Your task to perform on an android device: toggle location history Image 0: 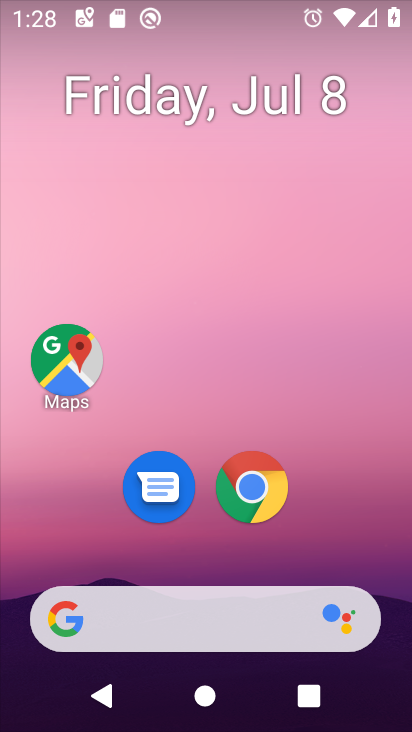
Step 0: drag from (335, 528) to (358, 140)
Your task to perform on an android device: toggle location history Image 1: 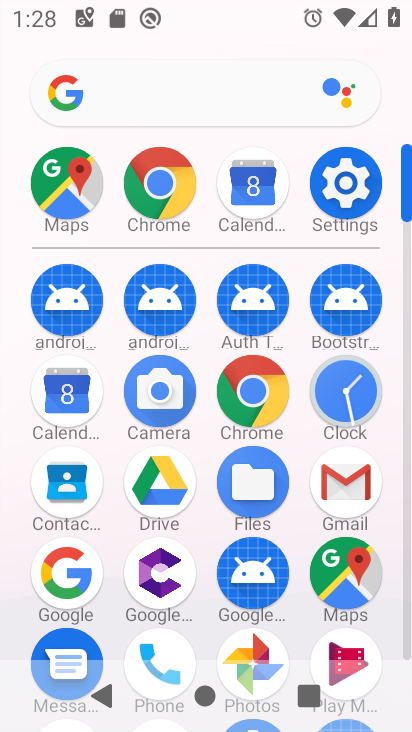
Step 1: click (343, 195)
Your task to perform on an android device: toggle location history Image 2: 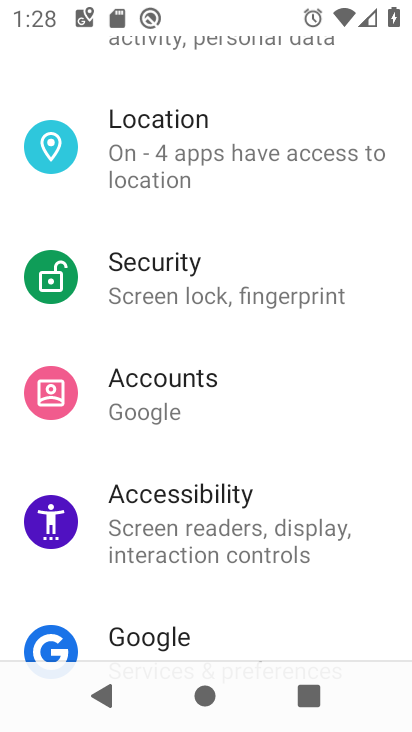
Step 2: drag from (368, 339) to (355, 407)
Your task to perform on an android device: toggle location history Image 3: 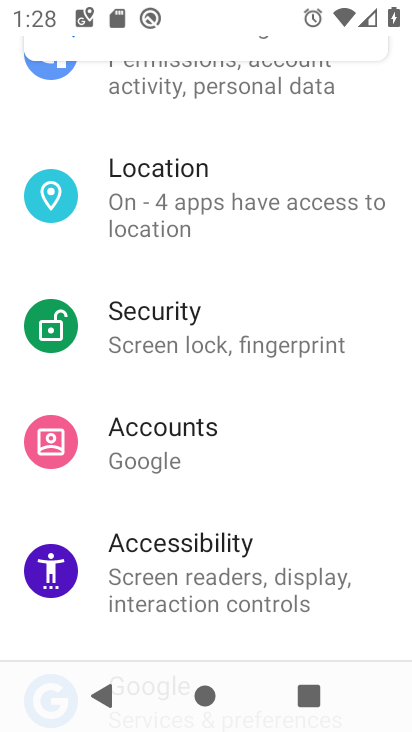
Step 3: drag from (376, 322) to (362, 405)
Your task to perform on an android device: toggle location history Image 4: 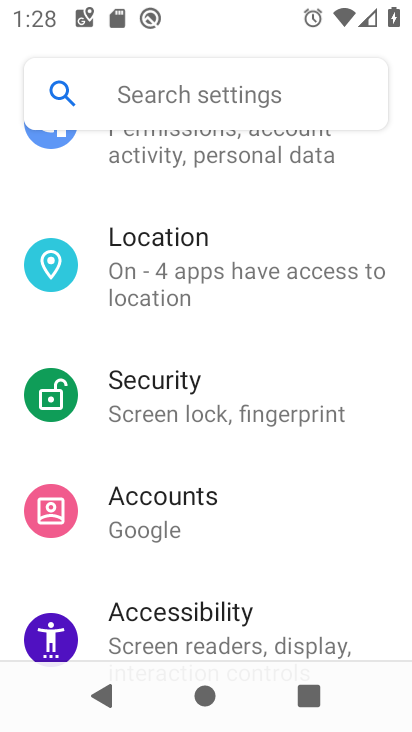
Step 4: drag from (355, 304) to (347, 391)
Your task to perform on an android device: toggle location history Image 5: 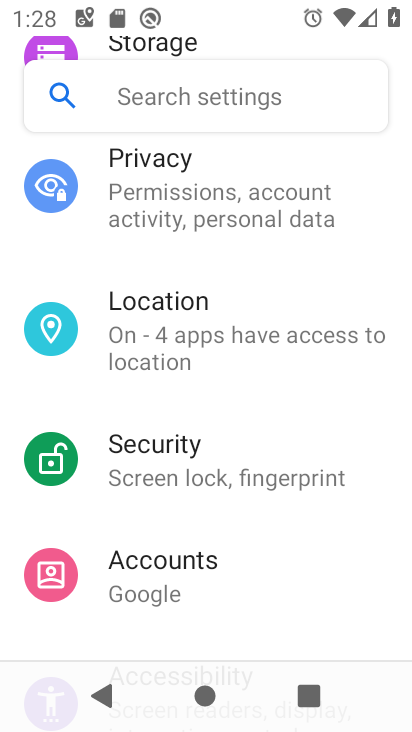
Step 5: drag from (343, 278) to (339, 380)
Your task to perform on an android device: toggle location history Image 6: 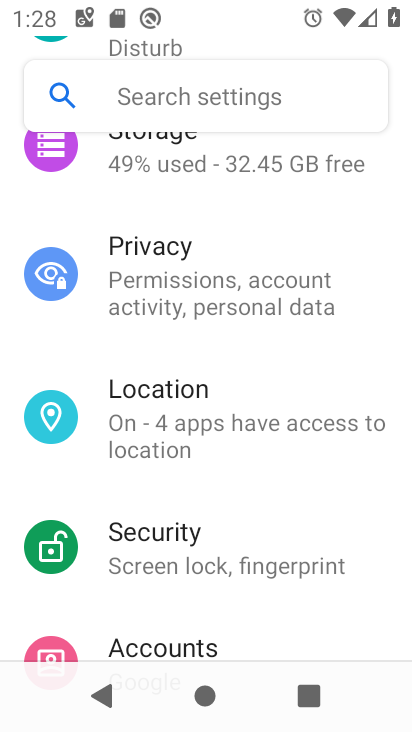
Step 6: drag from (365, 280) to (356, 369)
Your task to perform on an android device: toggle location history Image 7: 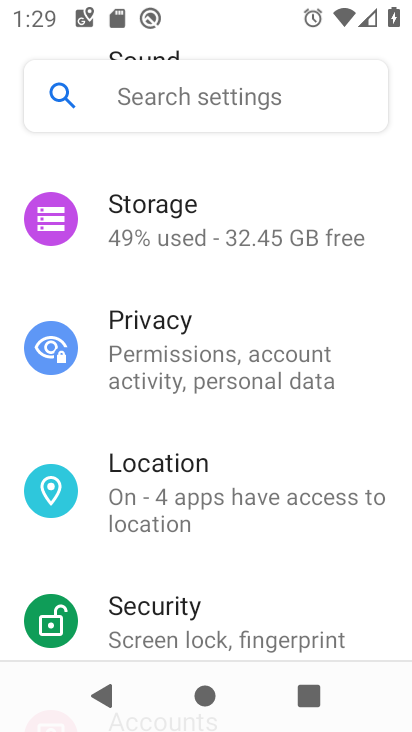
Step 7: click (323, 478)
Your task to perform on an android device: toggle location history Image 8: 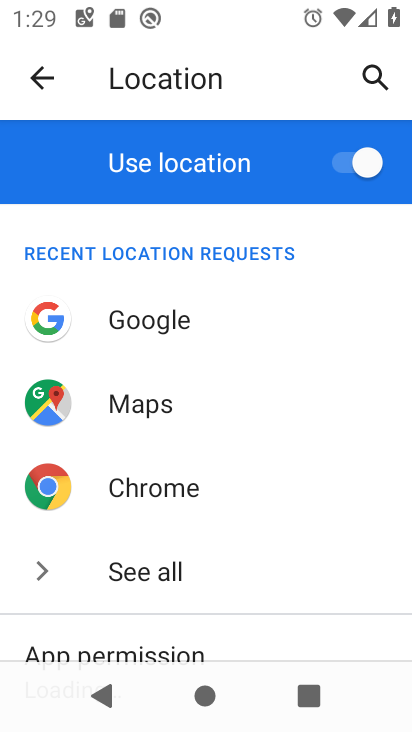
Step 8: drag from (330, 517) to (342, 422)
Your task to perform on an android device: toggle location history Image 9: 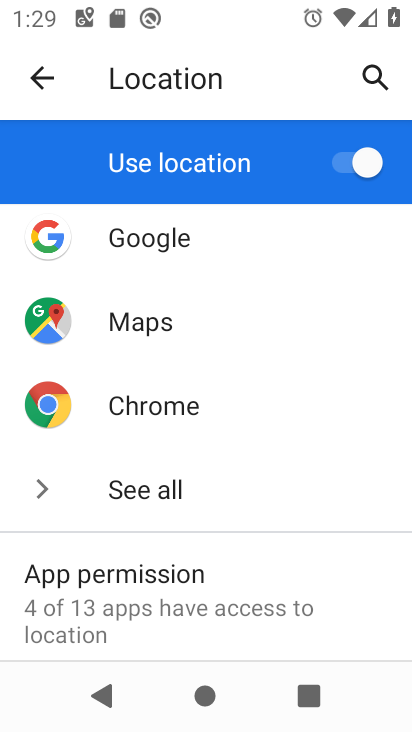
Step 9: drag from (336, 516) to (352, 332)
Your task to perform on an android device: toggle location history Image 10: 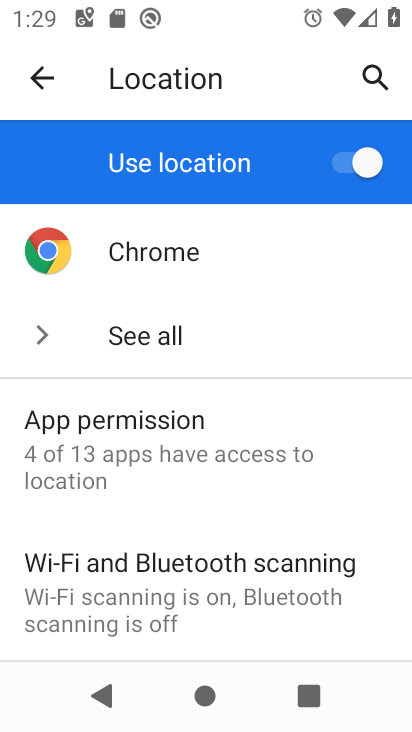
Step 10: drag from (360, 500) to (379, 363)
Your task to perform on an android device: toggle location history Image 11: 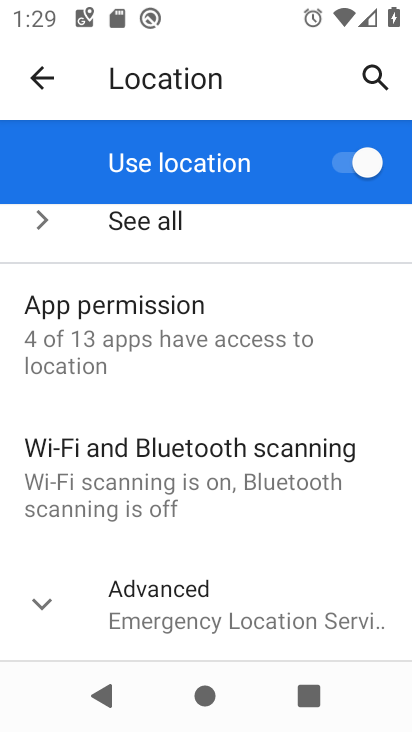
Step 11: drag from (363, 524) to (368, 391)
Your task to perform on an android device: toggle location history Image 12: 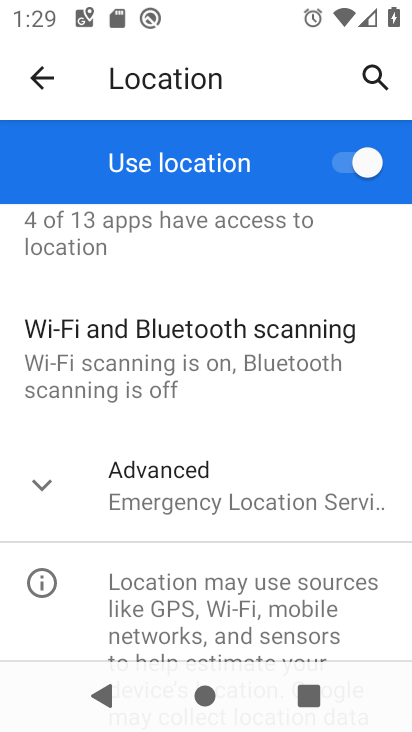
Step 12: click (173, 466)
Your task to perform on an android device: toggle location history Image 13: 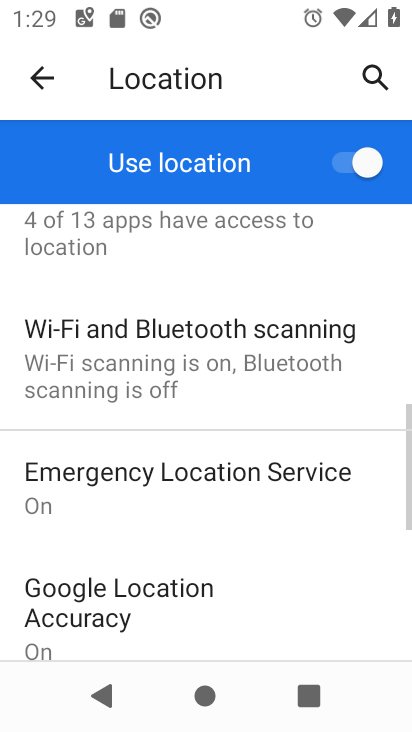
Step 13: drag from (288, 533) to (298, 432)
Your task to perform on an android device: toggle location history Image 14: 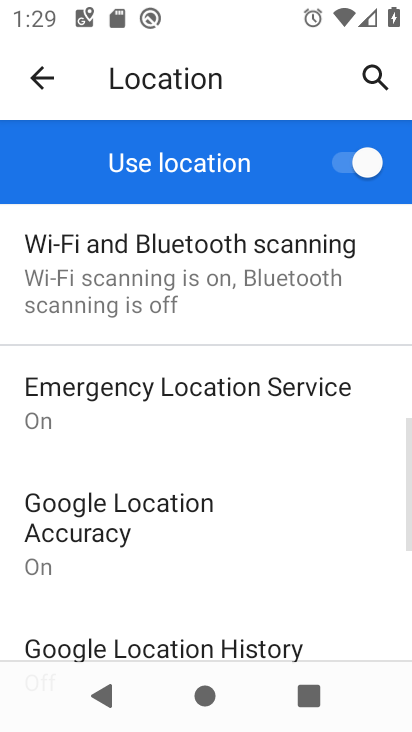
Step 14: drag from (303, 542) to (326, 420)
Your task to perform on an android device: toggle location history Image 15: 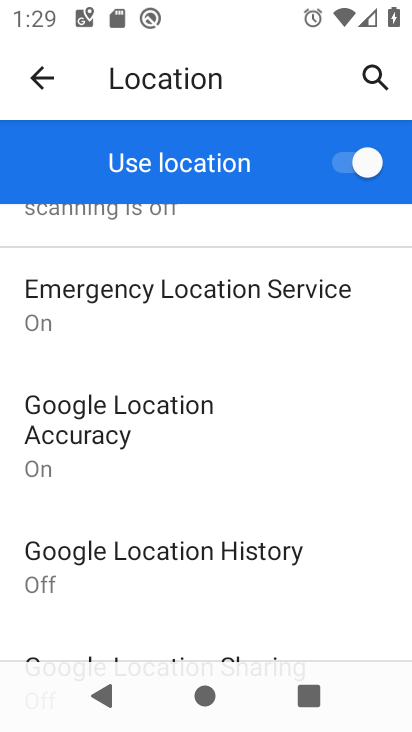
Step 15: click (306, 577)
Your task to perform on an android device: toggle location history Image 16: 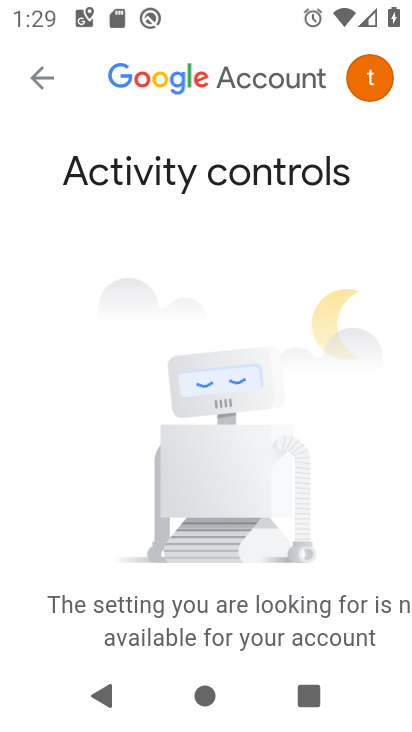
Step 16: task complete